Your task to perform on an android device: Go to Amazon Image 0: 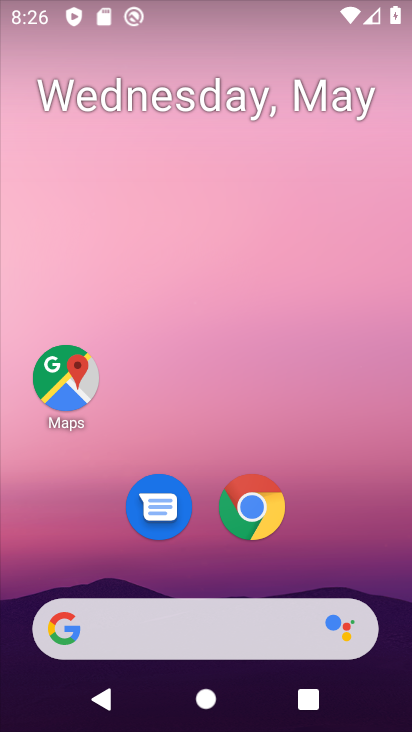
Step 0: drag from (322, 516) to (309, 193)
Your task to perform on an android device: Go to Amazon Image 1: 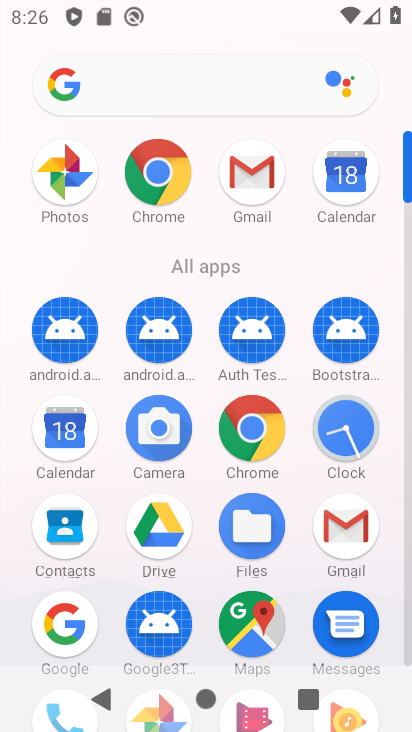
Step 1: click (165, 165)
Your task to perform on an android device: Go to Amazon Image 2: 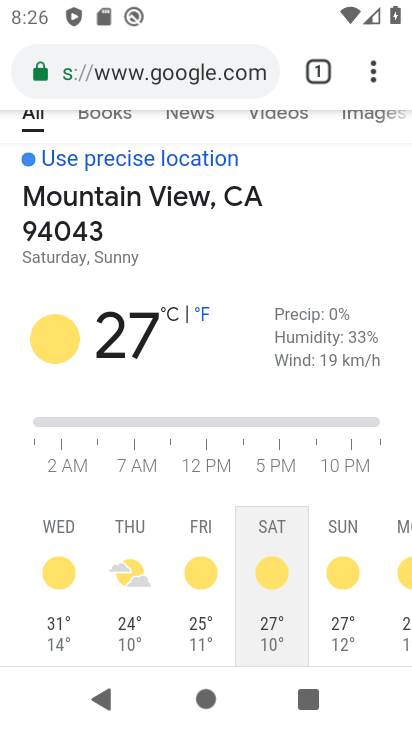
Step 2: drag from (366, 65) to (100, 135)
Your task to perform on an android device: Go to Amazon Image 3: 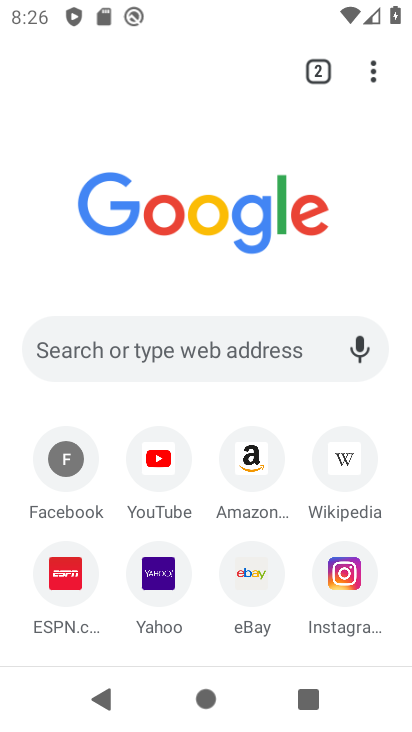
Step 3: click (249, 455)
Your task to perform on an android device: Go to Amazon Image 4: 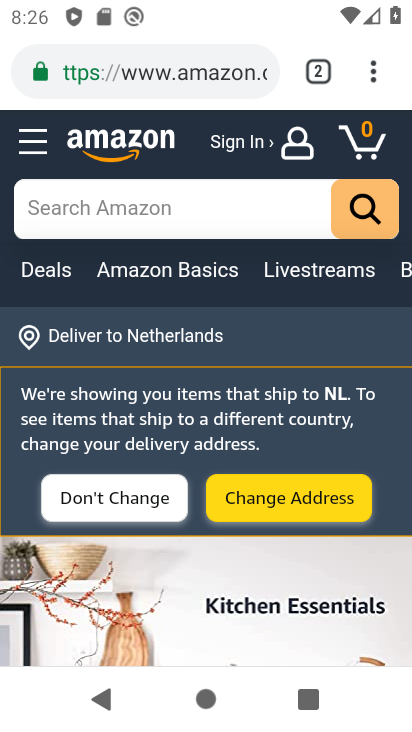
Step 4: task complete